Your task to perform on an android device: clear history in the chrome app Image 0: 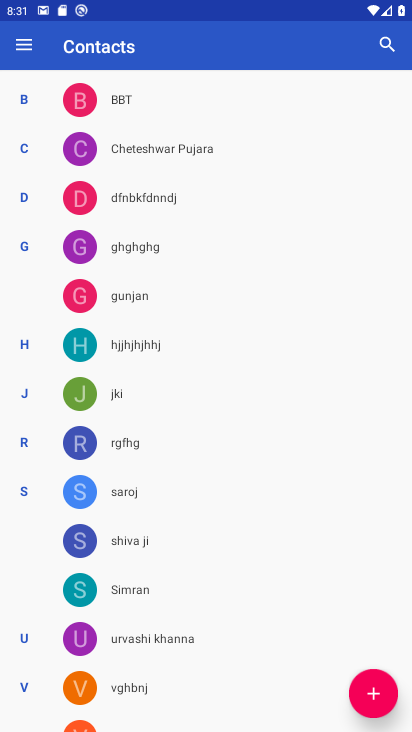
Step 0: press home button
Your task to perform on an android device: clear history in the chrome app Image 1: 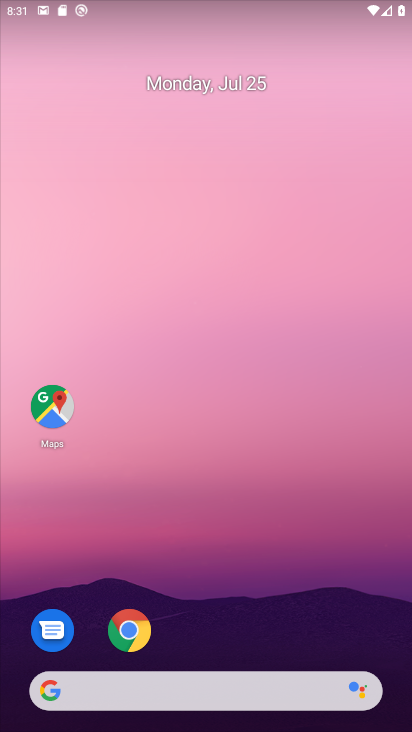
Step 1: drag from (267, 618) to (197, 76)
Your task to perform on an android device: clear history in the chrome app Image 2: 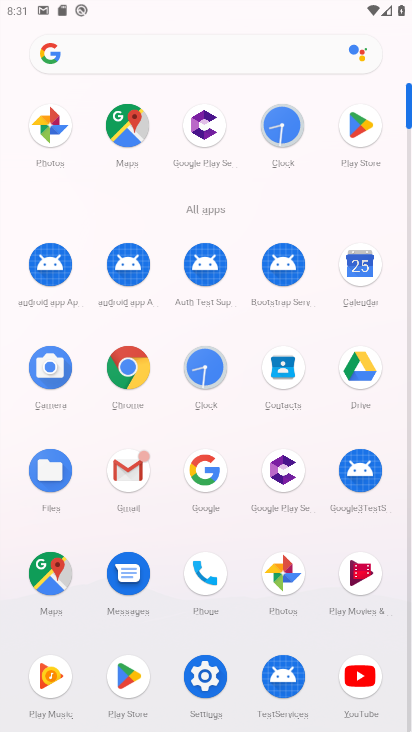
Step 2: click (112, 380)
Your task to perform on an android device: clear history in the chrome app Image 3: 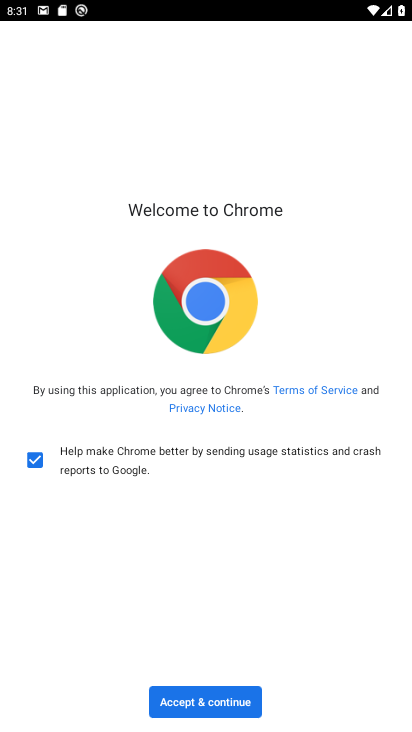
Step 3: click (233, 698)
Your task to perform on an android device: clear history in the chrome app Image 4: 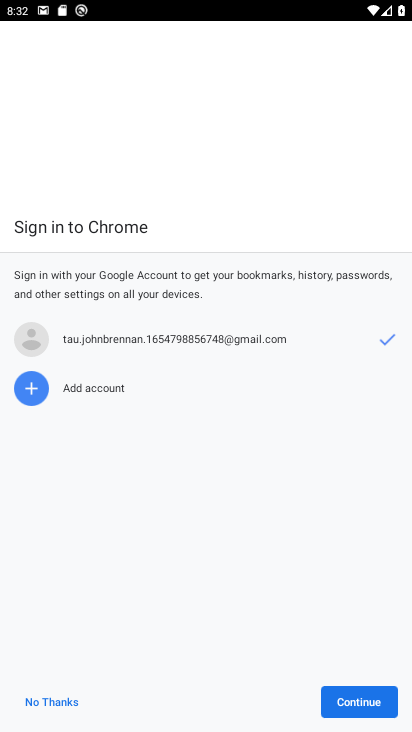
Step 4: click (340, 700)
Your task to perform on an android device: clear history in the chrome app Image 5: 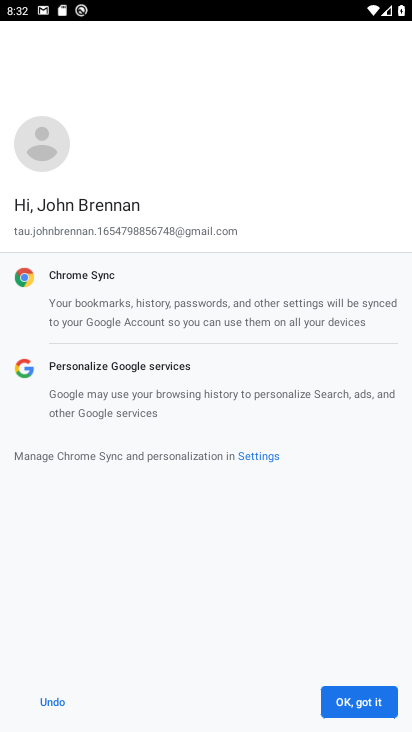
Step 5: click (376, 705)
Your task to perform on an android device: clear history in the chrome app Image 6: 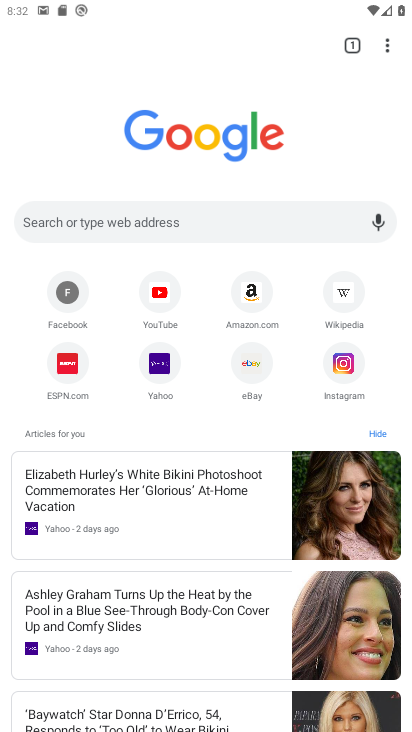
Step 6: click (385, 51)
Your task to perform on an android device: clear history in the chrome app Image 7: 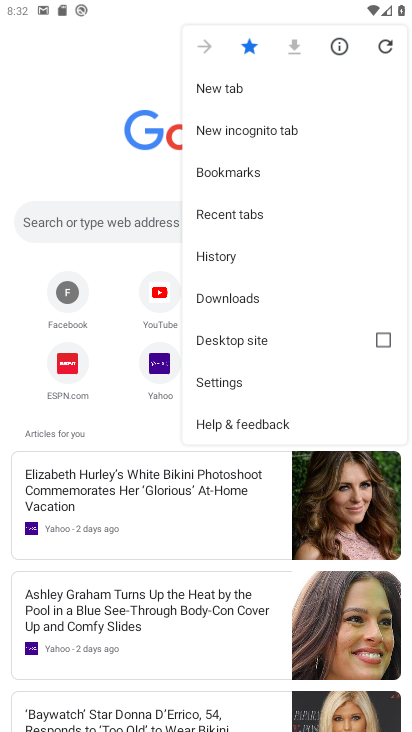
Step 7: click (256, 253)
Your task to perform on an android device: clear history in the chrome app Image 8: 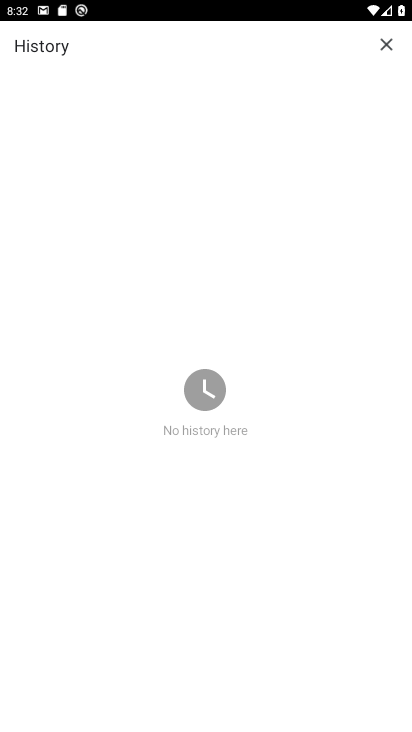
Step 8: task complete